Your task to perform on an android device: turn vacation reply on in the gmail app Image 0: 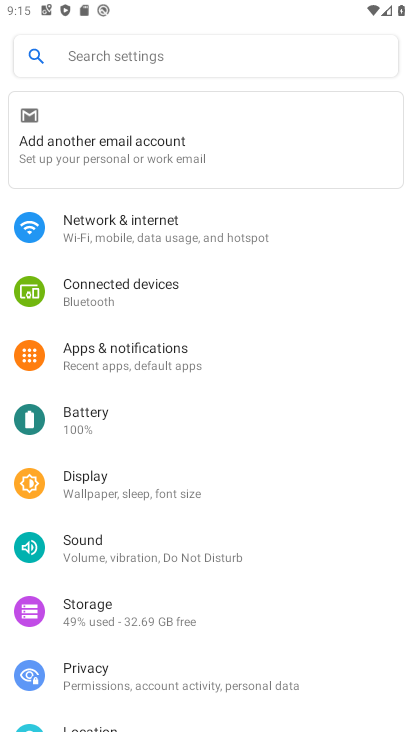
Step 0: press home button
Your task to perform on an android device: turn vacation reply on in the gmail app Image 1: 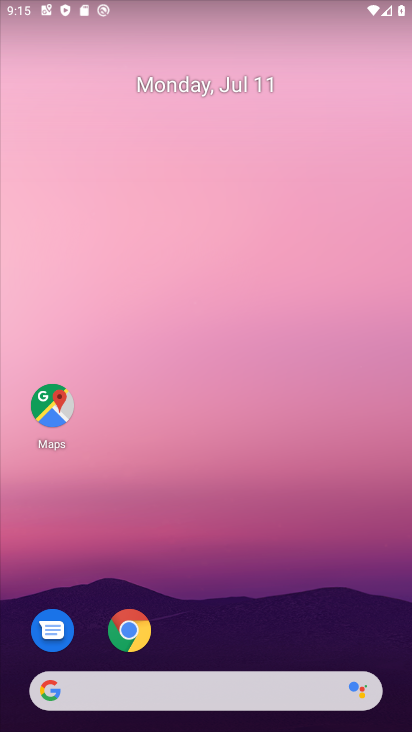
Step 1: drag from (235, 597) to (216, 111)
Your task to perform on an android device: turn vacation reply on in the gmail app Image 2: 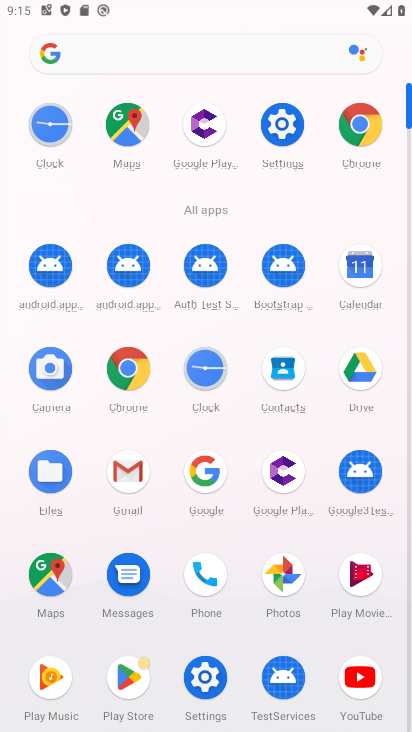
Step 2: click (127, 468)
Your task to perform on an android device: turn vacation reply on in the gmail app Image 3: 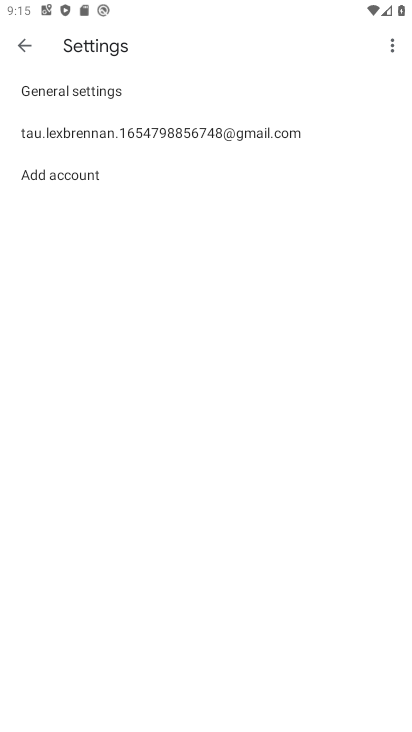
Step 3: click (166, 136)
Your task to perform on an android device: turn vacation reply on in the gmail app Image 4: 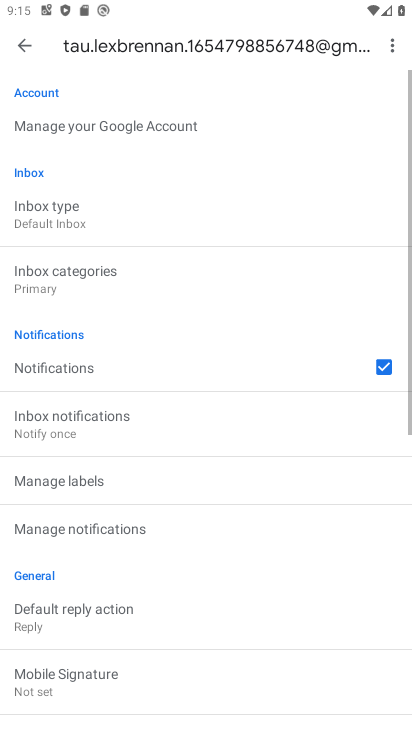
Step 4: drag from (307, 640) to (306, 192)
Your task to perform on an android device: turn vacation reply on in the gmail app Image 5: 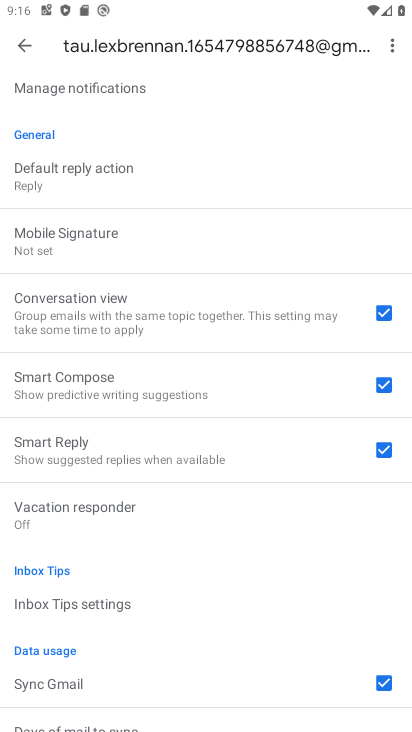
Step 5: click (85, 500)
Your task to perform on an android device: turn vacation reply on in the gmail app Image 6: 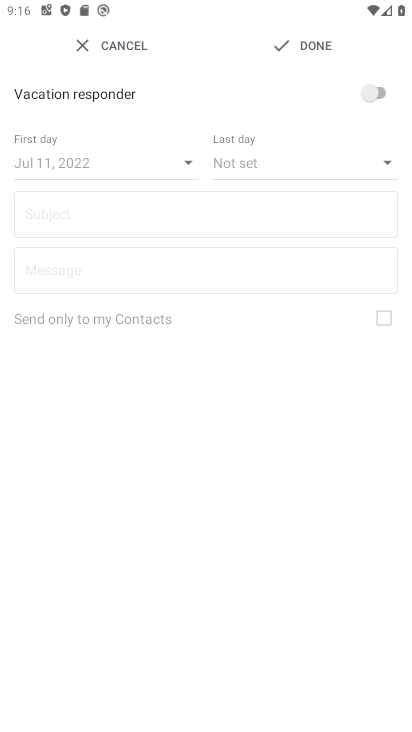
Step 6: click (368, 92)
Your task to perform on an android device: turn vacation reply on in the gmail app Image 7: 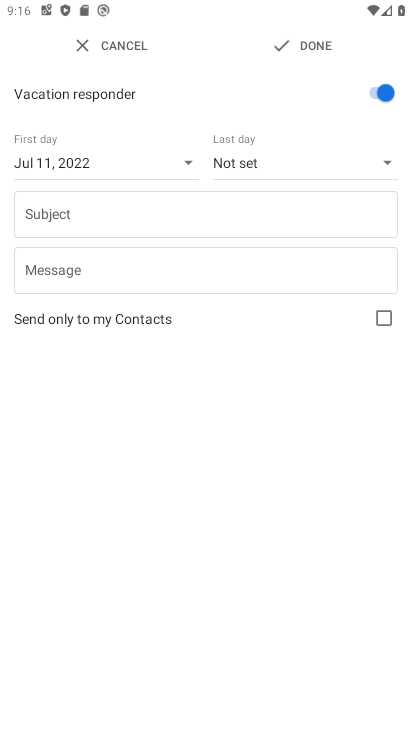
Step 7: click (282, 42)
Your task to perform on an android device: turn vacation reply on in the gmail app Image 8: 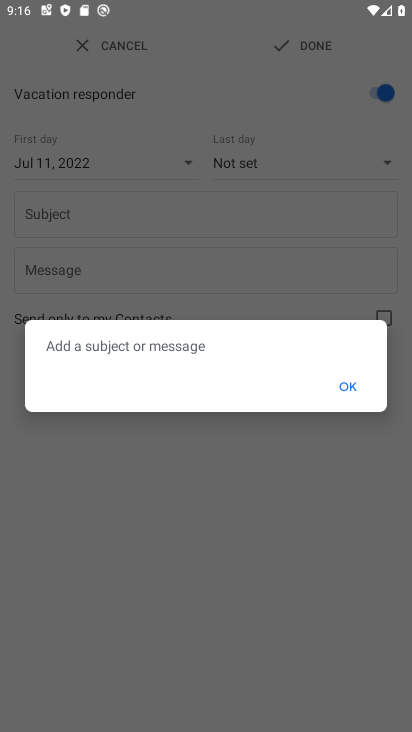
Step 8: click (348, 389)
Your task to perform on an android device: turn vacation reply on in the gmail app Image 9: 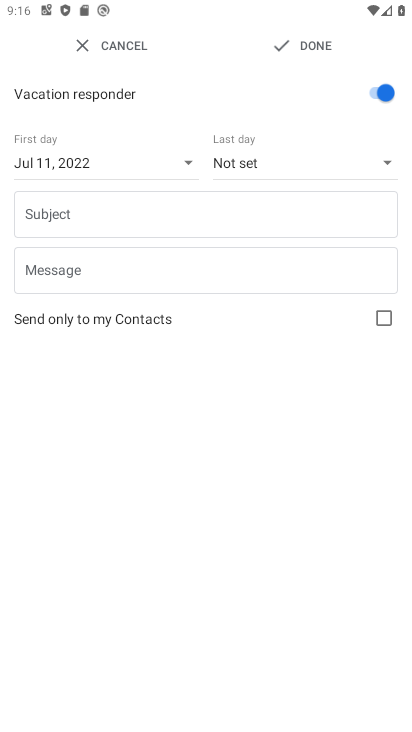
Step 9: task complete